Your task to perform on an android device: clear all cookies in the chrome app Image 0: 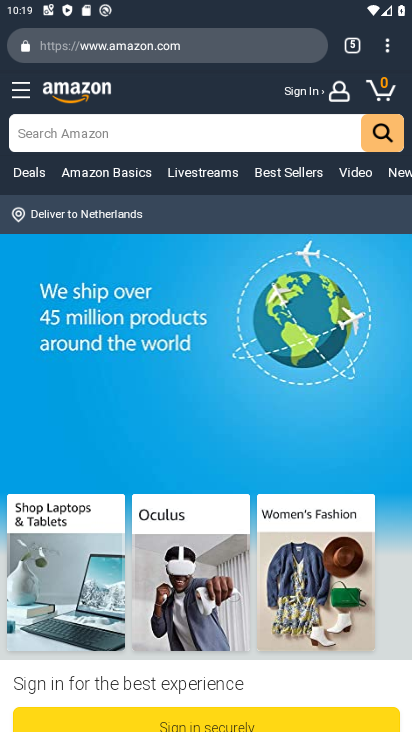
Step 0: press home button
Your task to perform on an android device: clear all cookies in the chrome app Image 1: 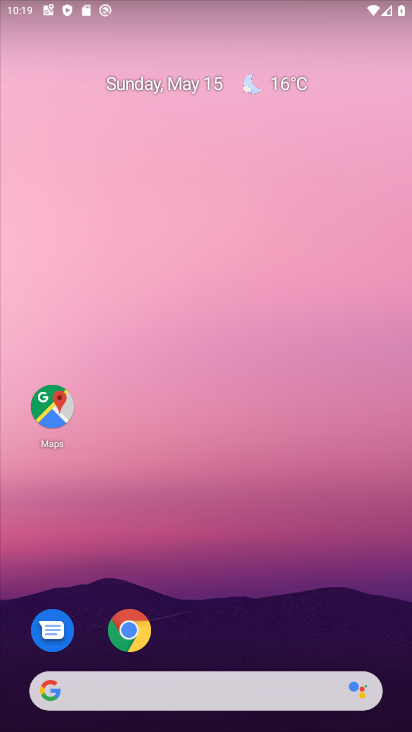
Step 1: click (128, 626)
Your task to perform on an android device: clear all cookies in the chrome app Image 2: 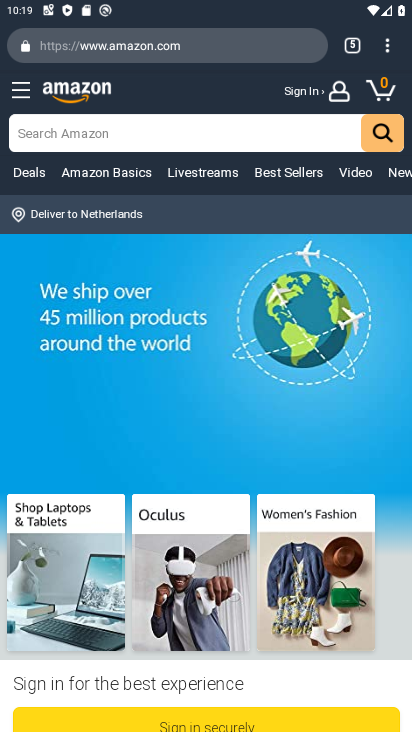
Step 2: click (357, 53)
Your task to perform on an android device: clear all cookies in the chrome app Image 3: 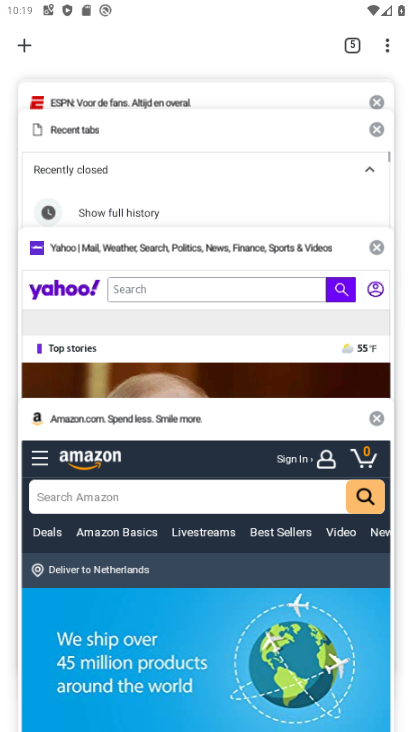
Step 3: click (390, 50)
Your task to perform on an android device: clear all cookies in the chrome app Image 4: 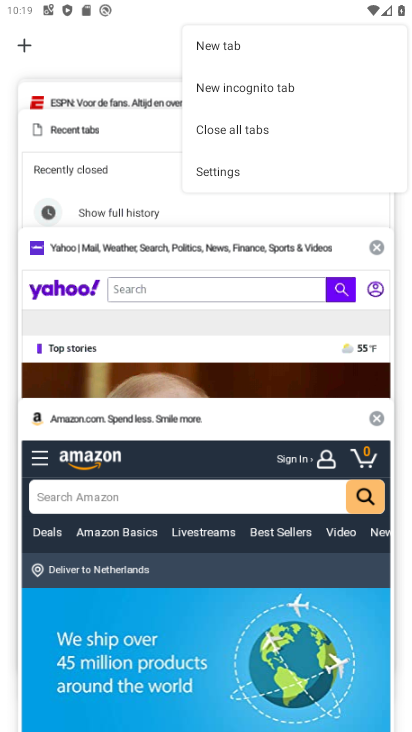
Step 4: click (111, 48)
Your task to perform on an android device: clear all cookies in the chrome app Image 5: 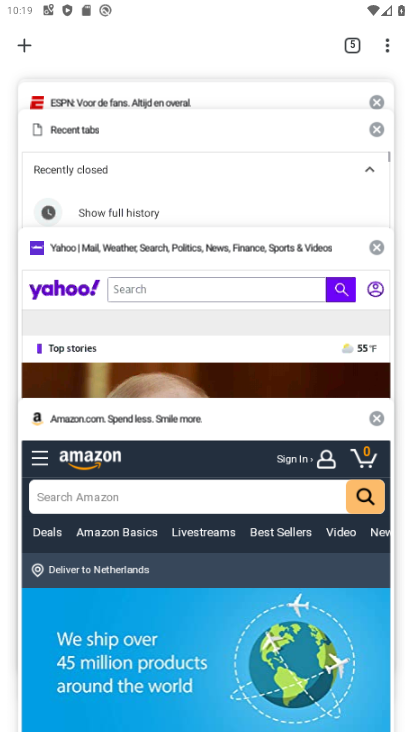
Step 5: click (380, 37)
Your task to perform on an android device: clear all cookies in the chrome app Image 6: 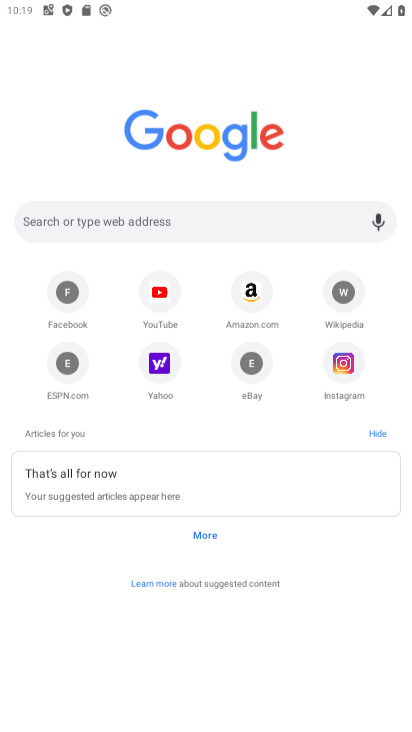
Step 6: click (106, 73)
Your task to perform on an android device: clear all cookies in the chrome app Image 7: 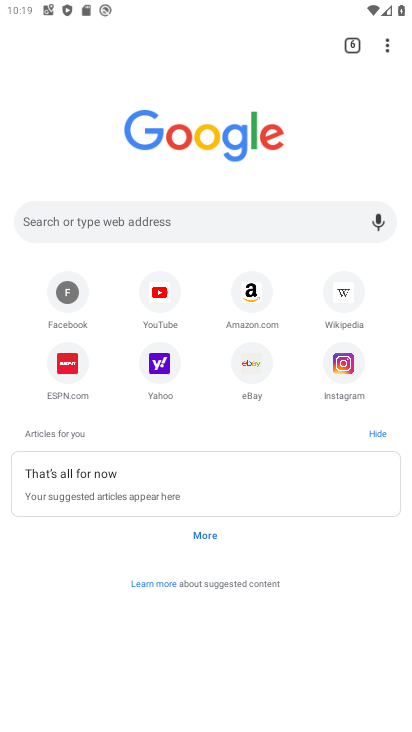
Step 7: task complete